Your task to perform on an android device: open app "Speedtest by Ookla" (install if not already installed) and go to login screen Image 0: 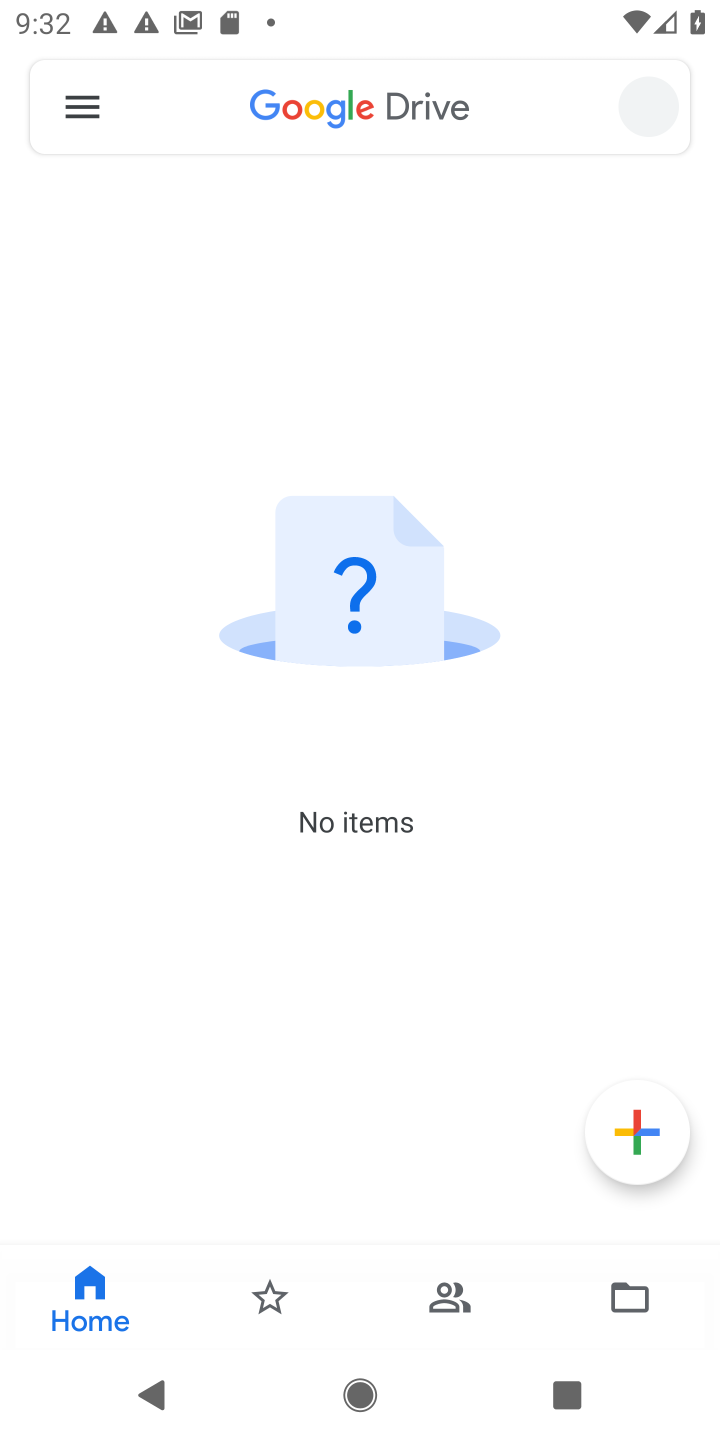
Step 0: press home button
Your task to perform on an android device: open app "Speedtest by Ookla" (install if not already installed) and go to login screen Image 1: 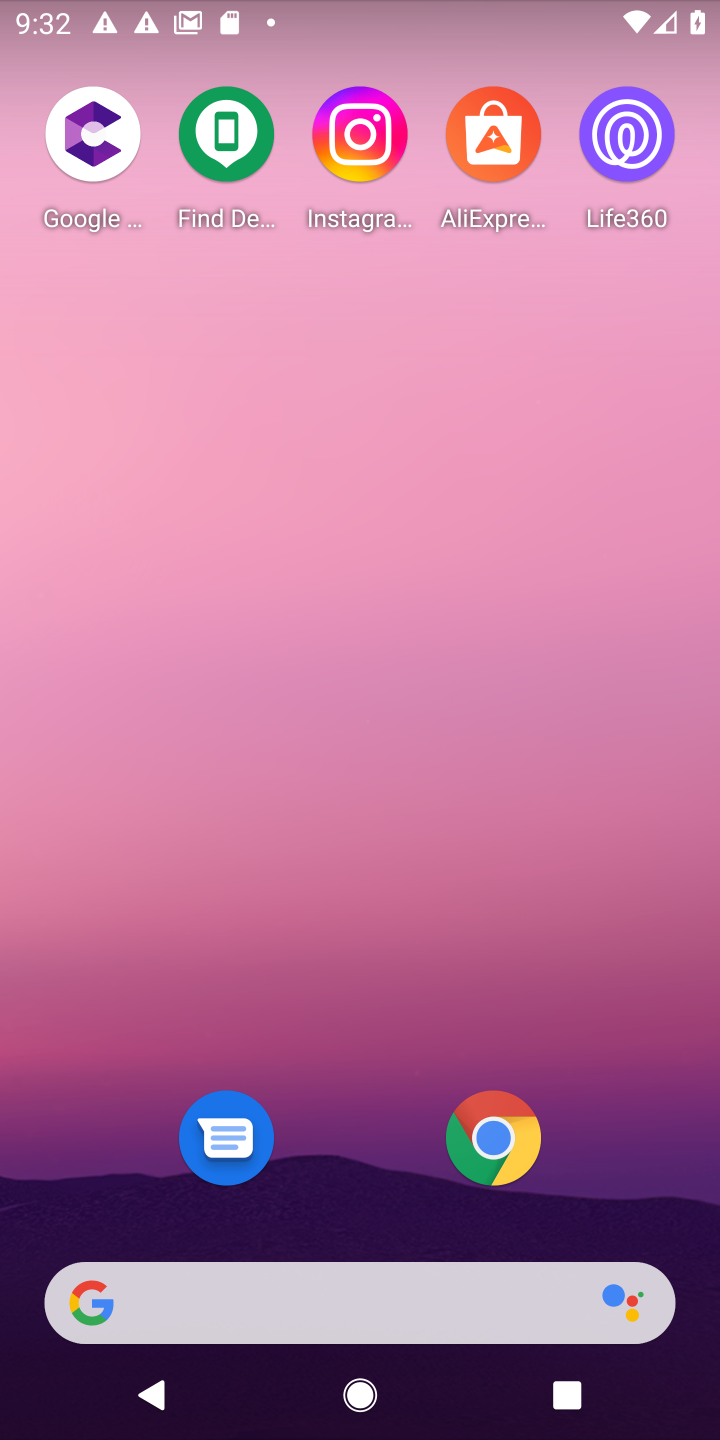
Step 1: press home button
Your task to perform on an android device: open app "Speedtest by Ookla" (install if not already installed) and go to login screen Image 2: 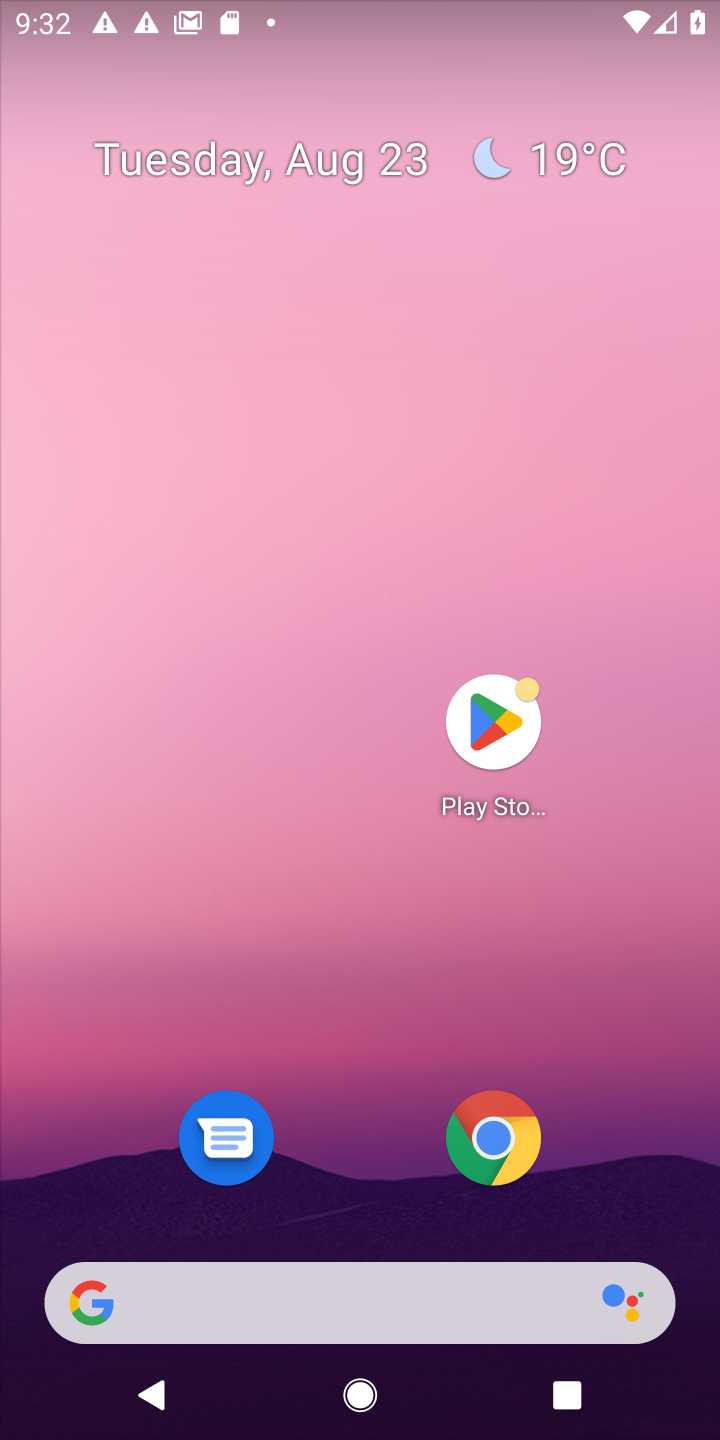
Step 2: click (494, 737)
Your task to perform on an android device: open app "Speedtest by Ookla" (install if not already installed) and go to login screen Image 3: 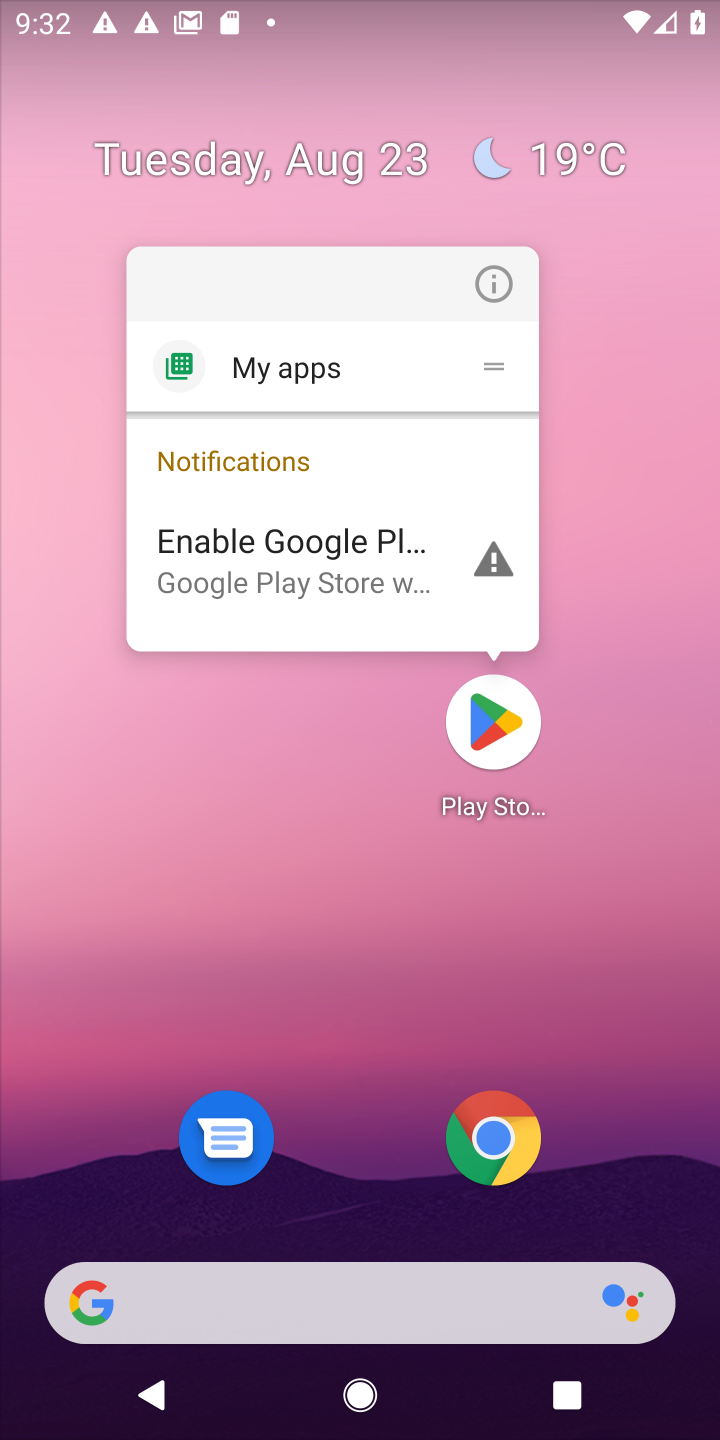
Step 3: click (494, 740)
Your task to perform on an android device: open app "Speedtest by Ookla" (install if not already installed) and go to login screen Image 4: 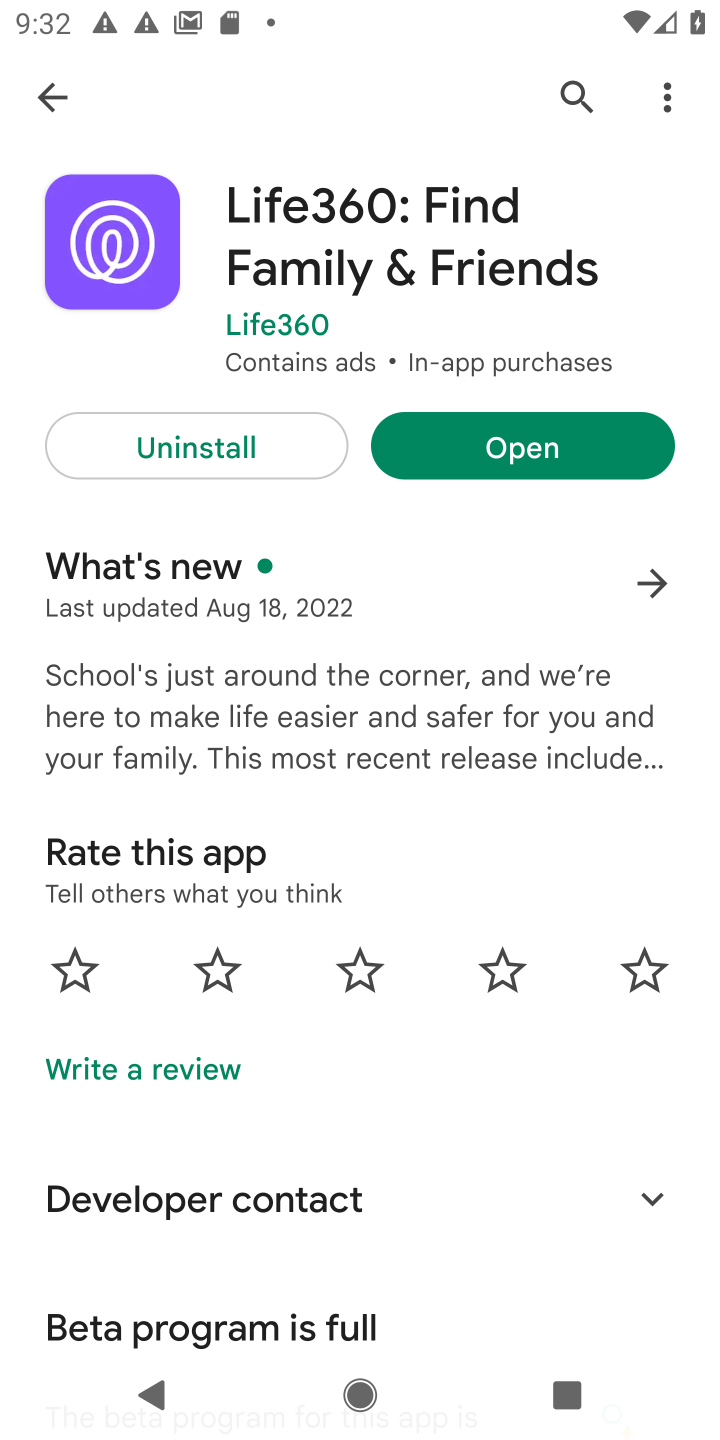
Step 4: click (570, 98)
Your task to perform on an android device: open app "Speedtest by Ookla" (install if not already installed) and go to login screen Image 5: 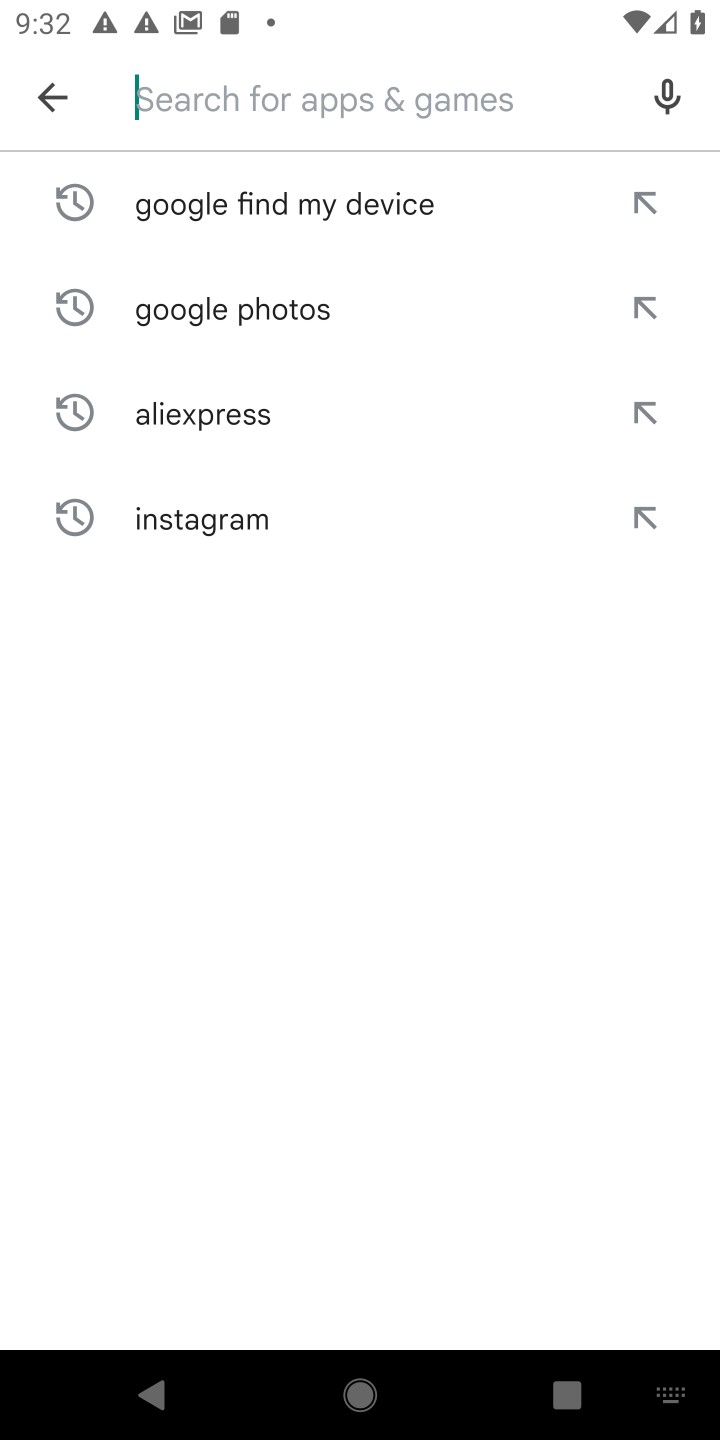
Step 5: type "Speedtest by Ookla"
Your task to perform on an android device: open app "Speedtest by Ookla" (install if not already installed) and go to login screen Image 6: 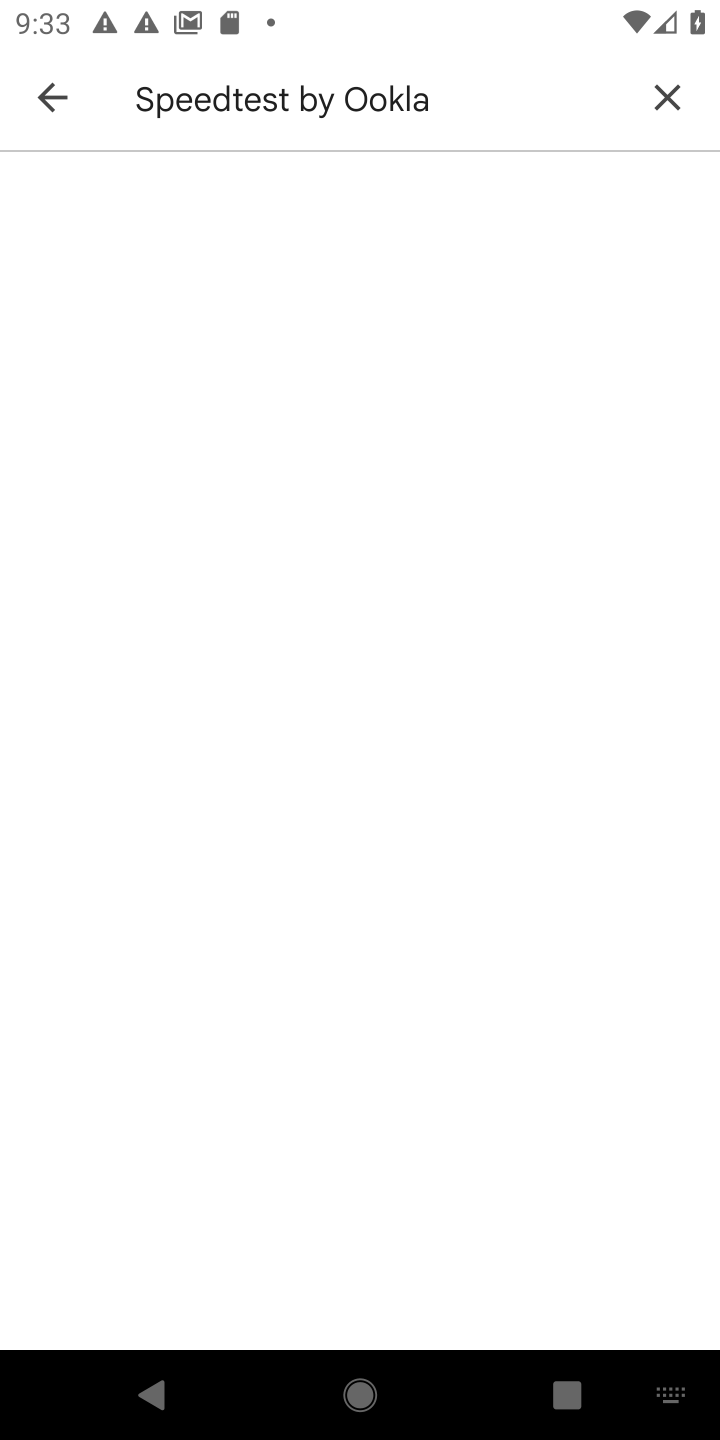
Step 6: click (663, 92)
Your task to perform on an android device: open app "Speedtest by Ookla" (install if not already installed) and go to login screen Image 7: 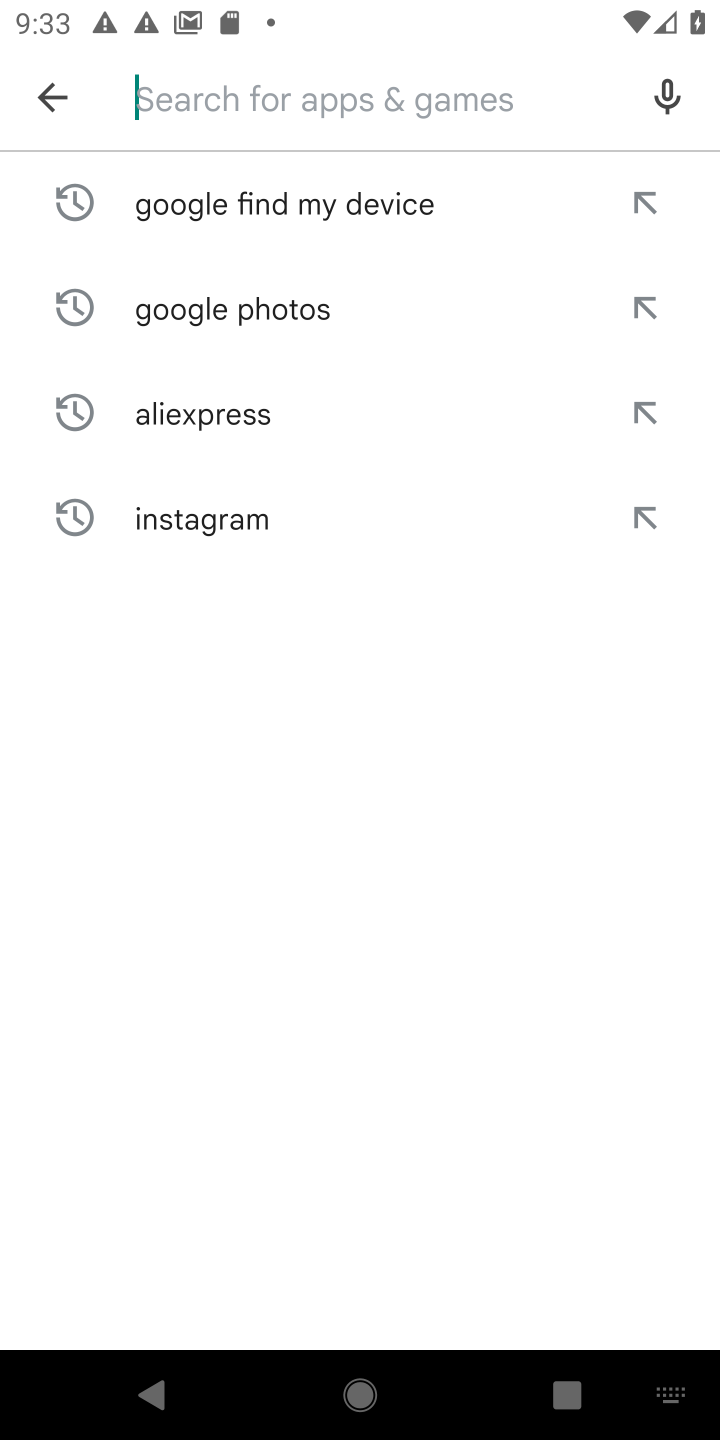
Step 7: type "Speedtest by Ookla"
Your task to perform on an android device: open app "Speedtest by Ookla" (install if not already installed) and go to login screen Image 8: 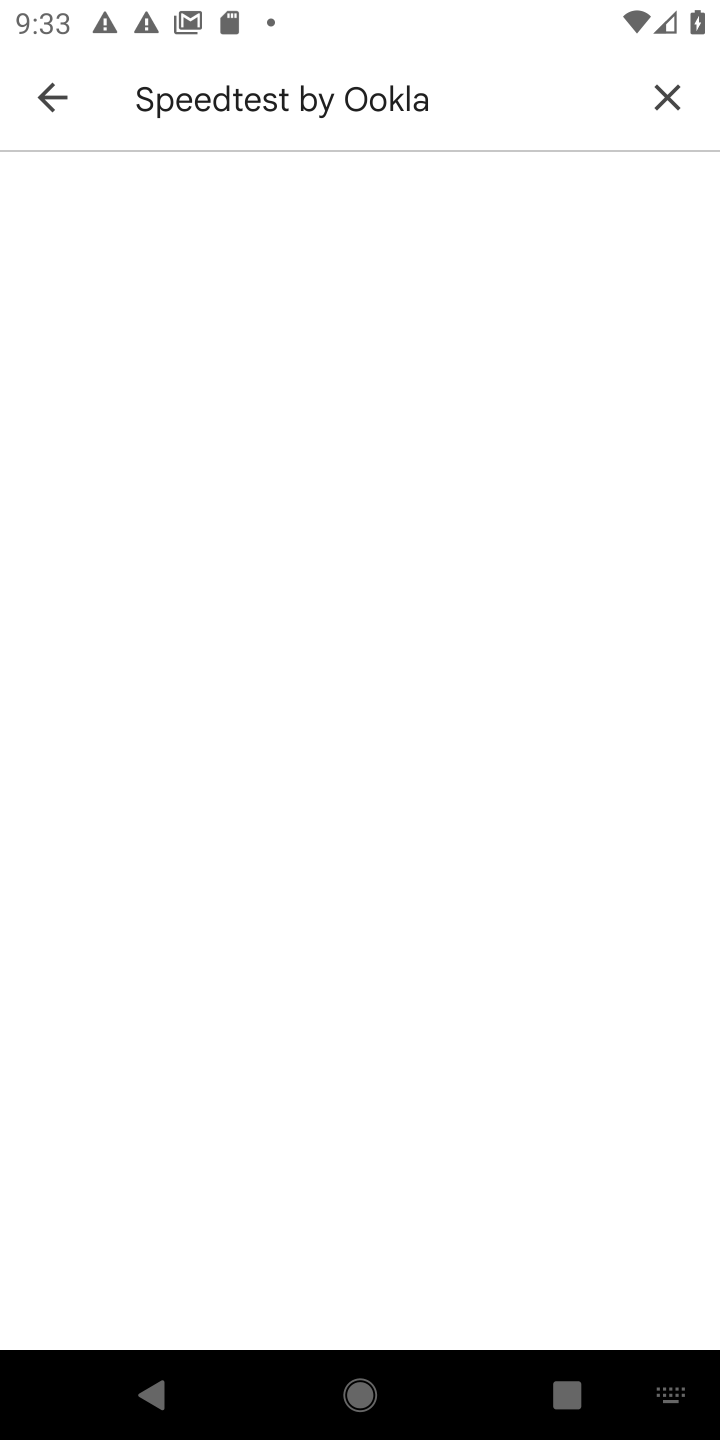
Step 8: task complete